Your task to perform on an android device: Go to eBay Image 0: 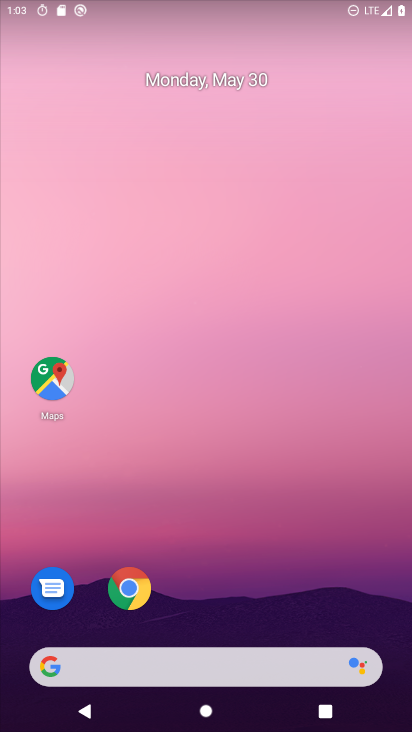
Step 0: drag from (285, 567) to (328, 139)
Your task to perform on an android device: Go to eBay Image 1: 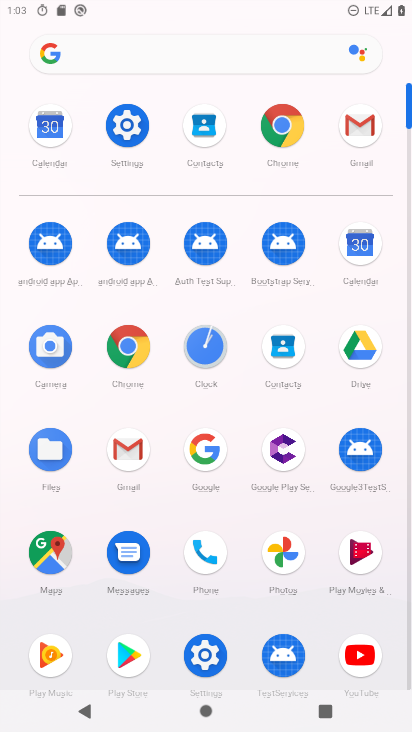
Step 1: click (126, 353)
Your task to perform on an android device: Go to eBay Image 2: 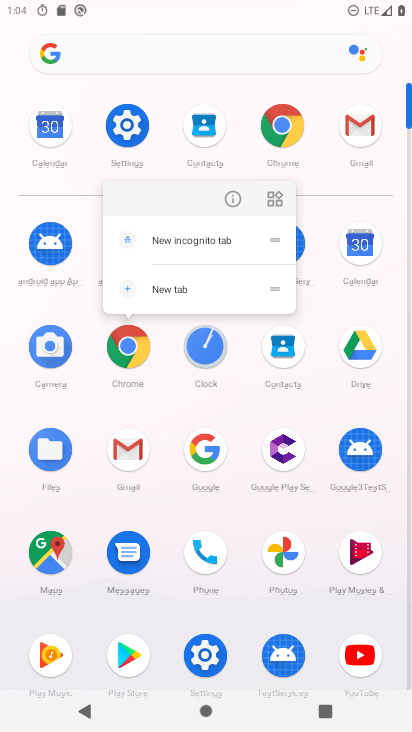
Step 2: click (142, 356)
Your task to perform on an android device: Go to eBay Image 3: 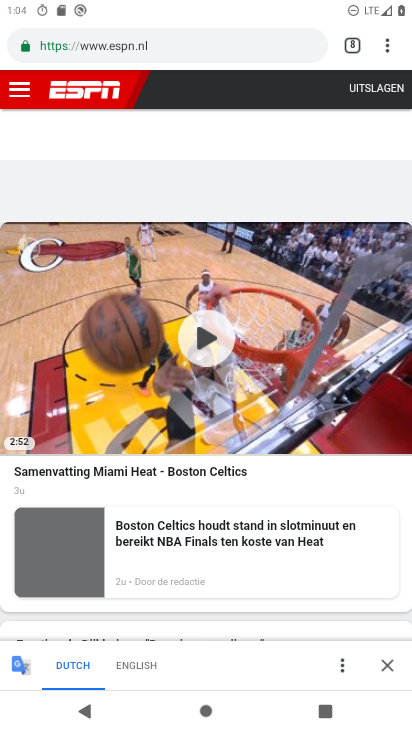
Step 3: click (357, 55)
Your task to perform on an android device: Go to eBay Image 4: 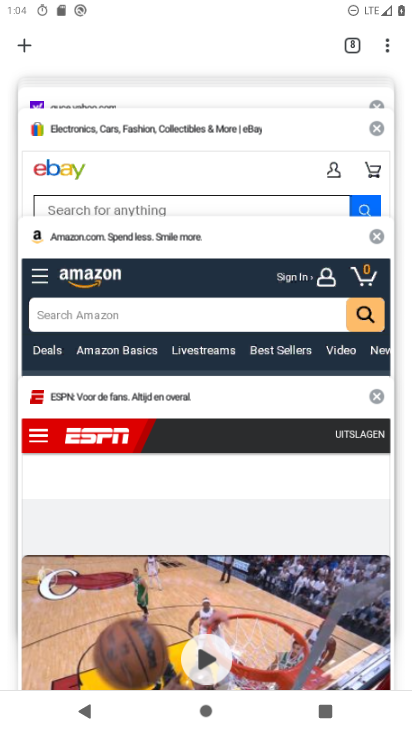
Step 4: click (33, 58)
Your task to perform on an android device: Go to eBay Image 5: 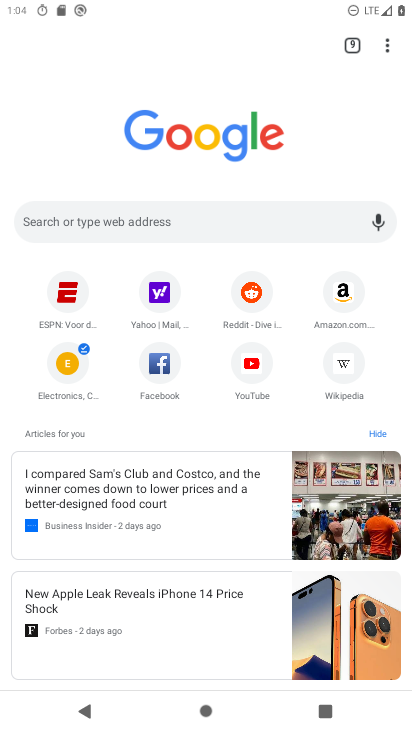
Step 5: click (75, 373)
Your task to perform on an android device: Go to eBay Image 6: 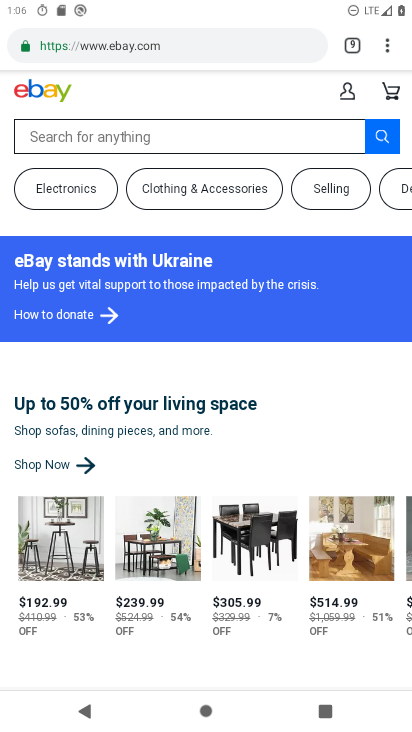
Step 6: task complete